Your task to perform on an android device: stop showing notifications on the lock screen Image 0: 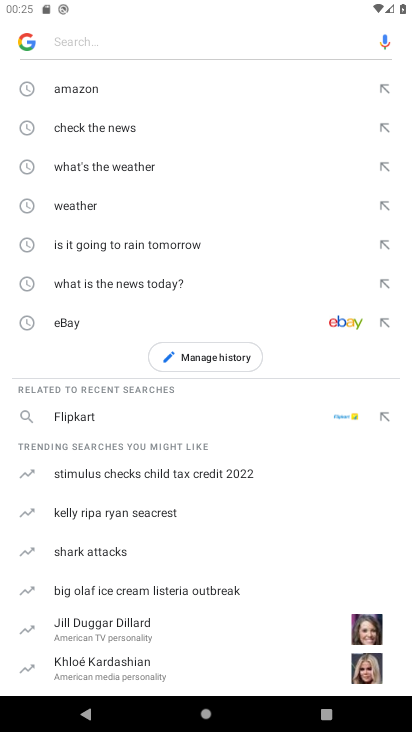
Step 0: press home button
Your task to perform on an android device: stop showing notifications on the lock screen Image 1: 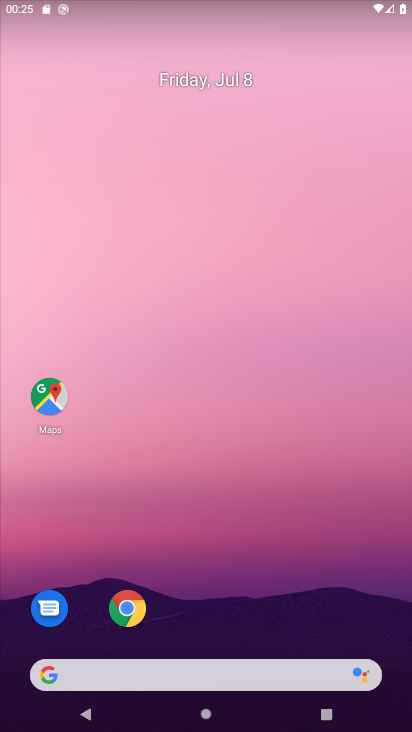
Step 1: drag from (253, 649) to (262, 269)
Your task to perform on an android device: stop showing notifications on the lock screen Image 2: 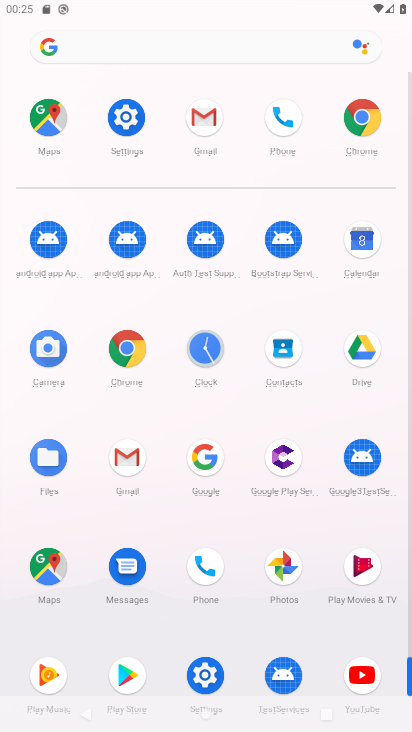
Step 2: click (122, 97)
Your task to perform on an android device: stop showing notifications on the lock screen Image 3: 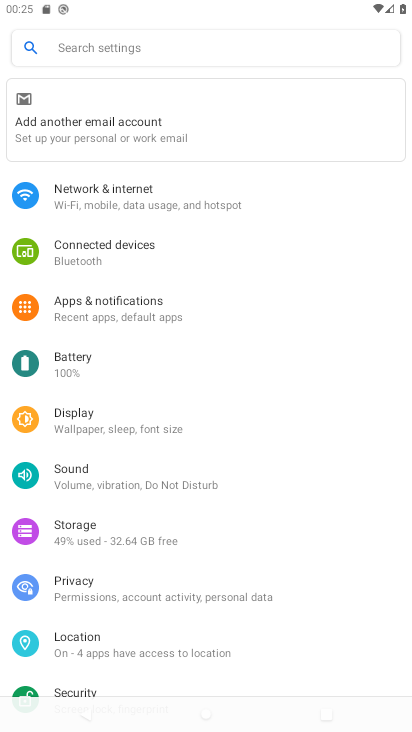
Step 3: click (140, 312)
Your task to perform on an android device: stop showing notifications on the lock screen Image 4: 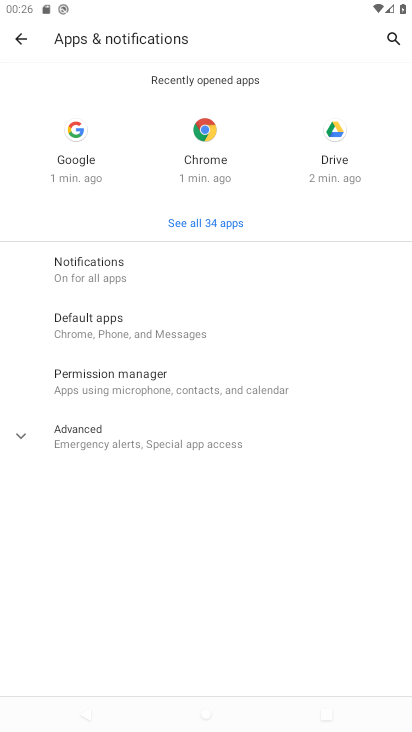
Step 4: click (138, 263)
Your task to perform on an android device: stop showing notifications on the lock screen Image 5: 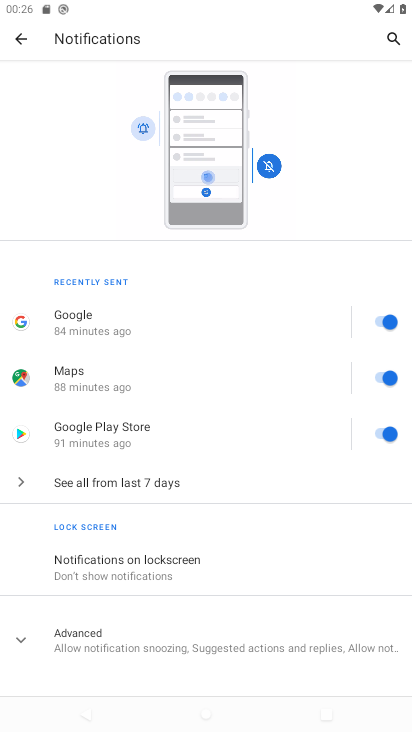
Step 5: click (199, 573)
Your task to perform on an android device: stop showing notifications on the lock screen Image 6: 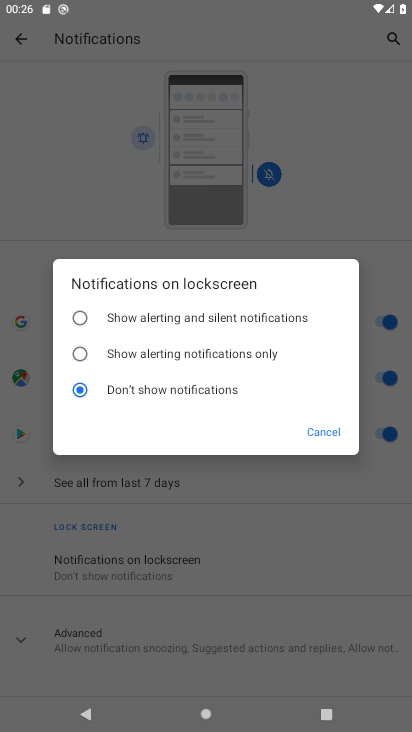
Step 6: task complete